Your task to perform on an android device: What's the weather today? Image 0: 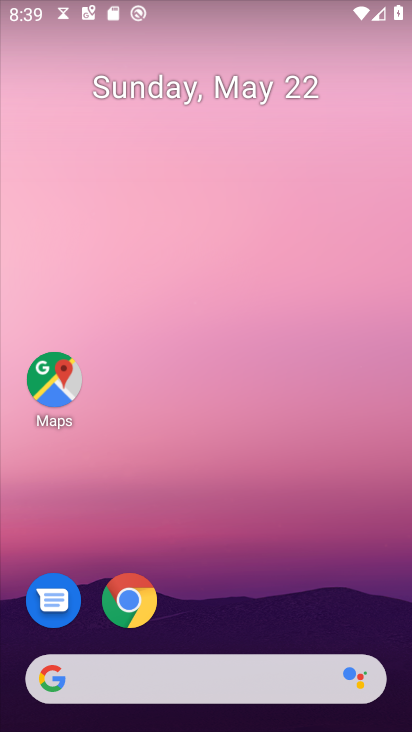
Step 0: drag from (187, 604) to (231, 284)
Your task to perform on an android device: What's the weather today? Image 1: 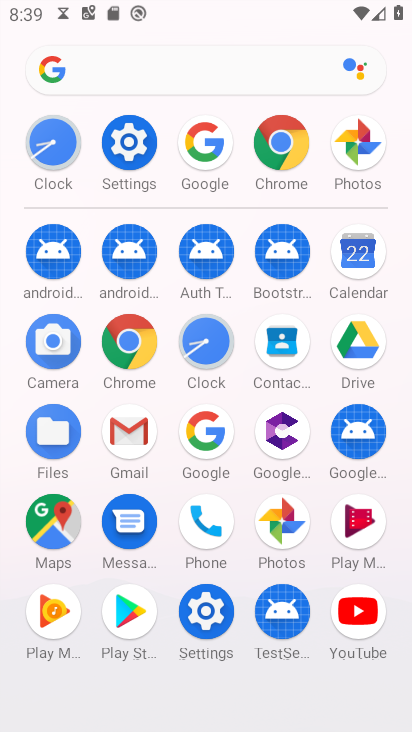
Step 1: click (209, 140)
Your task to perform on an android device: What's the weather today? Image 2: 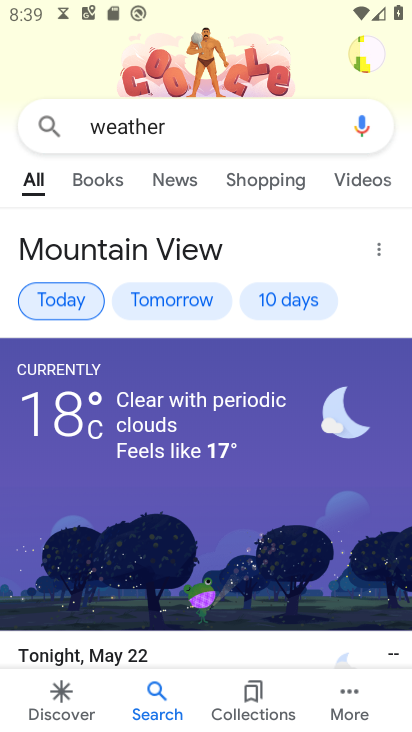
Step 2: task complete